Your task to perform on an android device: turn on priority inbox in the gmail app Image 0: 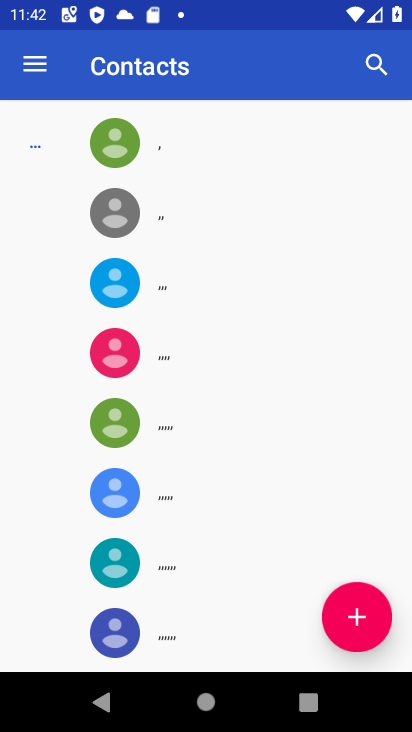
Step 0: press home button
Your task to perform on an android device: turn on priority inbox in the gmail app Image 1: 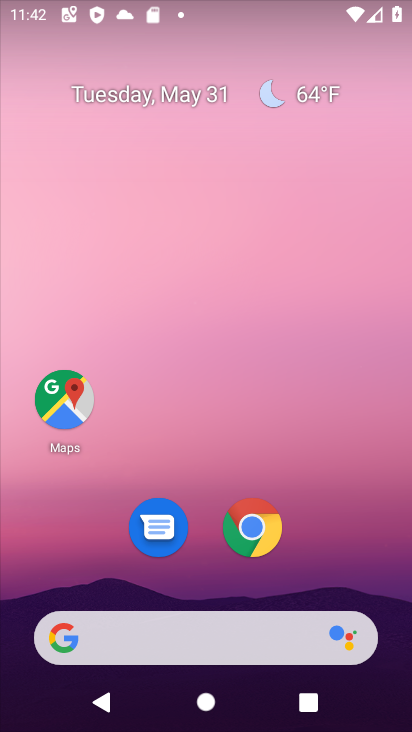
Step 1: drag from (179, 631) to (405, 422)
Your task to perform on an android device: turn on priority inbox in the gmail app Image 2: 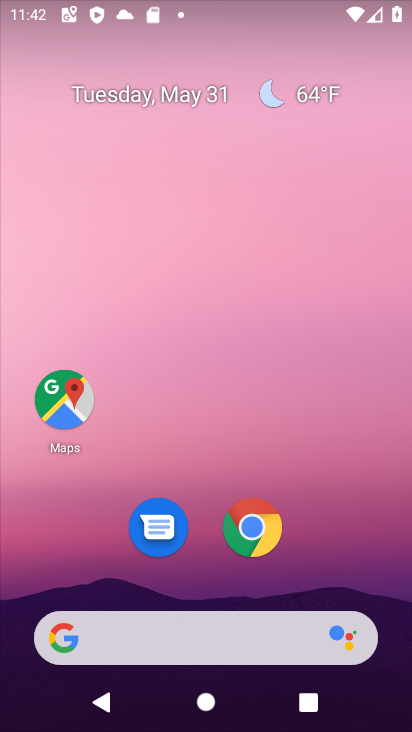
Step 2: click (344, 497)
Your task to perform on an android device: turn on priority inbox in the gmail app Image 3: 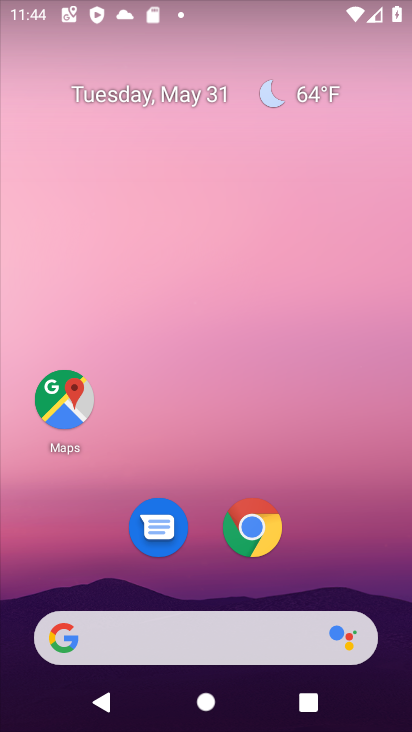
Step 3: drag from (209, 668) to (176, 128)
Your task to perform on an android device: turn on priority inbox in the gmail app Image 4: 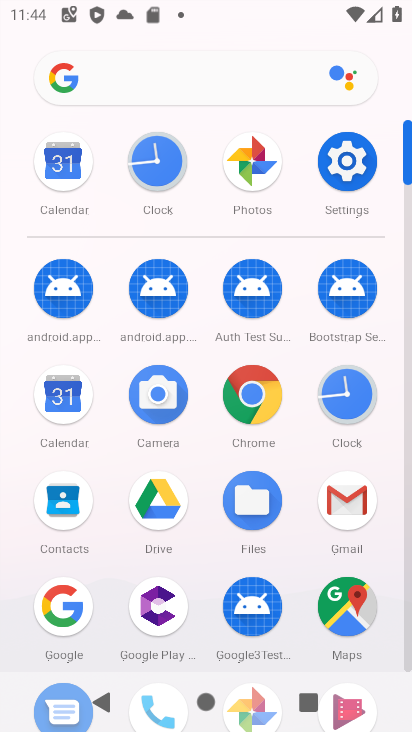
Step 4: click (346, 493)
Your task to perform on an android device: turn on priority inbox in the gmail app Image 5: 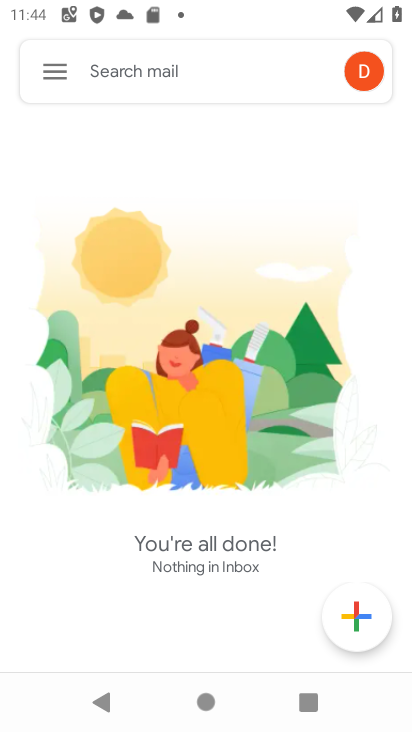
Step 5: click (47, 69)
Your task to perform on an android device: turn on priority inbox in the gmail app Image 6: 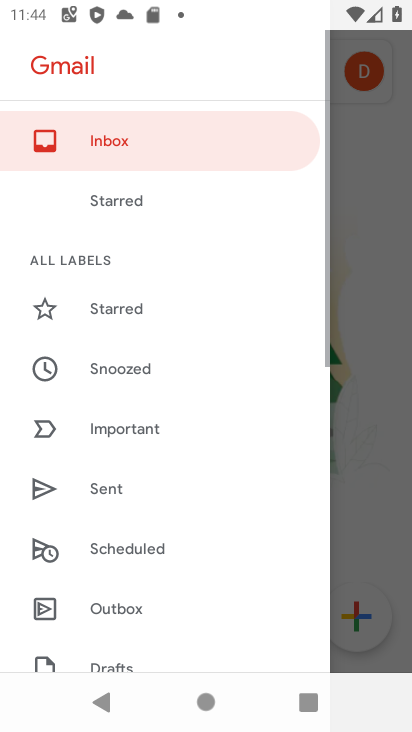
Step 6: drag from (120, 586) to (54, 25)
Your task to perform on an android device: turn on priority inbox in the gmail app Image 7: 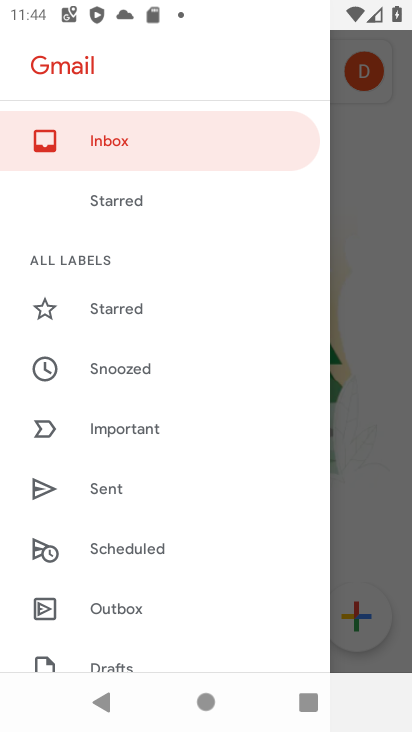
Step 7: drag from (148, 638) to (188, 38)
Your task to perform on an android device: turn on priority inbox in the gmail app Image 8: 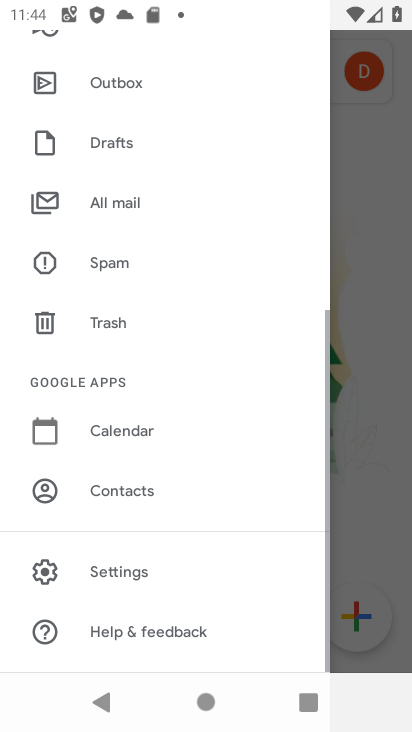
Step 8: click (132, 595)
Your task to perform on an android device: turn on priority inbox in the gmail app Image 9: 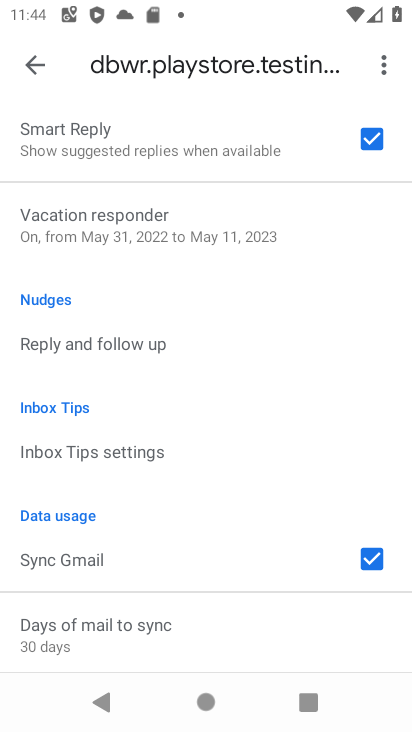
Step 9: drag from (145, 272) to (194, 717)
Your task to perform on an android device: turn on priority inbox in the gmail app Image 10: 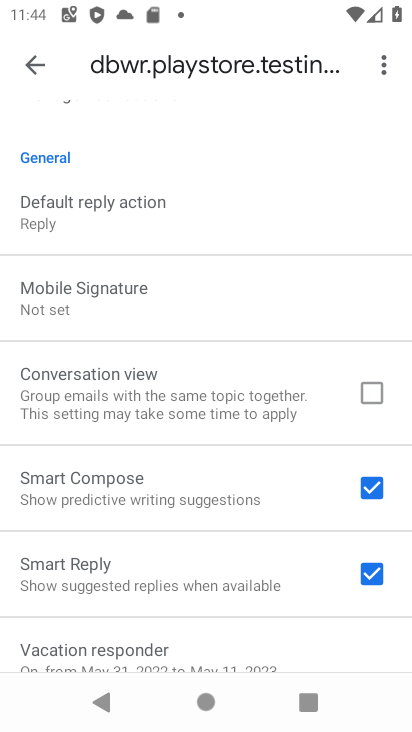
Step 10: drag from (174, 202) to (127, 723)
Your task to perform on an android device: turn on priority inbox in the gmail app Image 11: 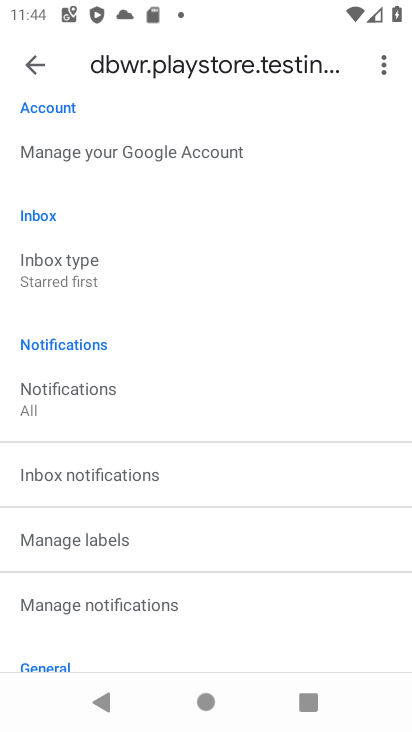
Step 11: click (72, 275)
Your task to perform on an android device: turn on priority inbox in the gmail app Image 12: 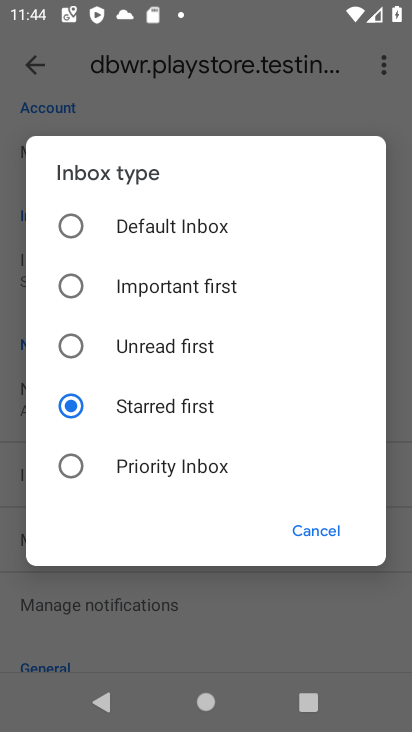
Step 12: click (164, 471)
Your task to perform on an android device: turn on priority inbox in the gmail app Image 13: 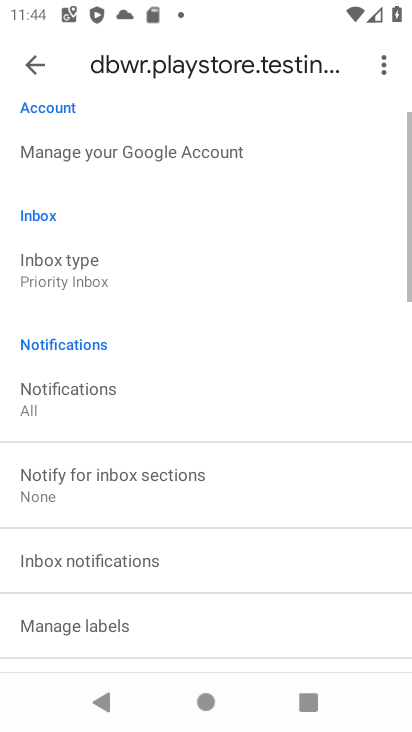
Step 13: task complete